Your task to perform on an android device: toggle javascript in the chrome app Image 0: 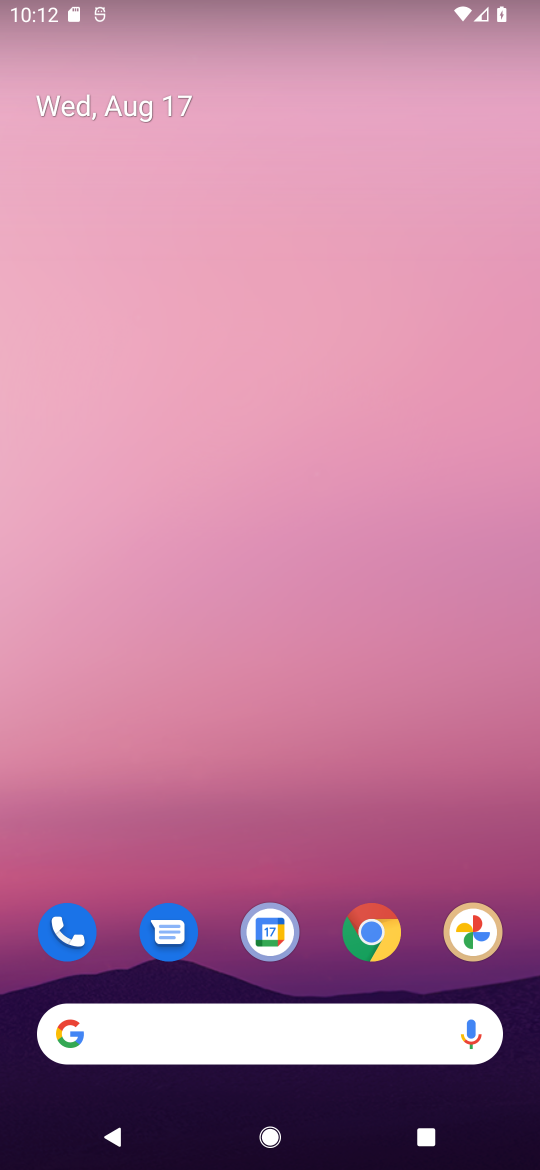
Step 0: click (372, 929)
Your task to perform on an android device: toggle javascript in the chrome app Image 1: 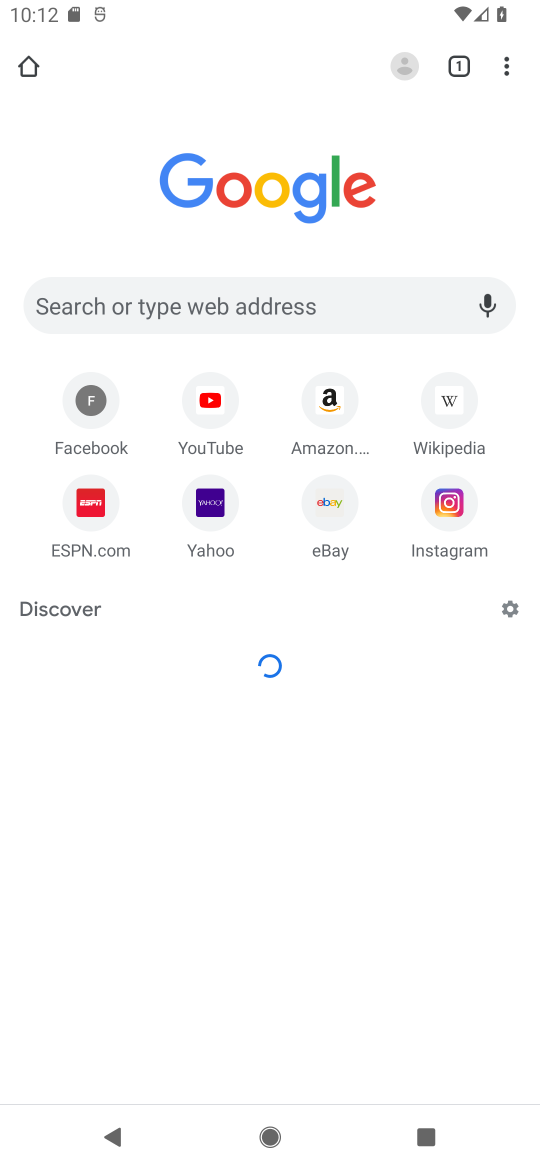
Step 1: drag from (510, 71) to (305, 569)
Your task to perform on an android device: toggle javascript in the chrome app Image 2: 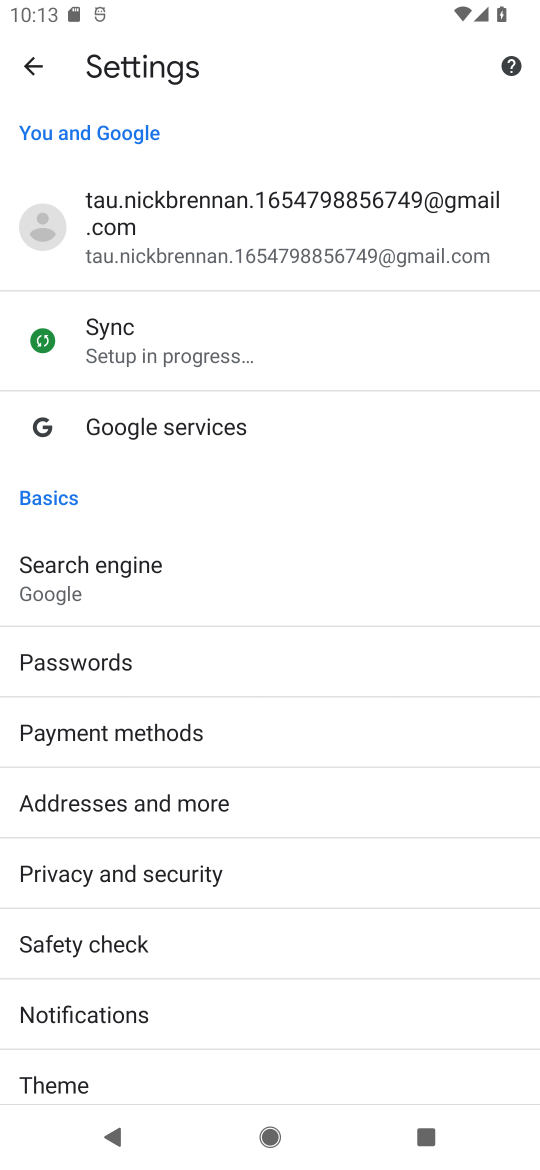
Step 2: drag from (93, 998) to (93, 512)
Your task to perform on an android device: toggle javascript in the chrome app Image 3: 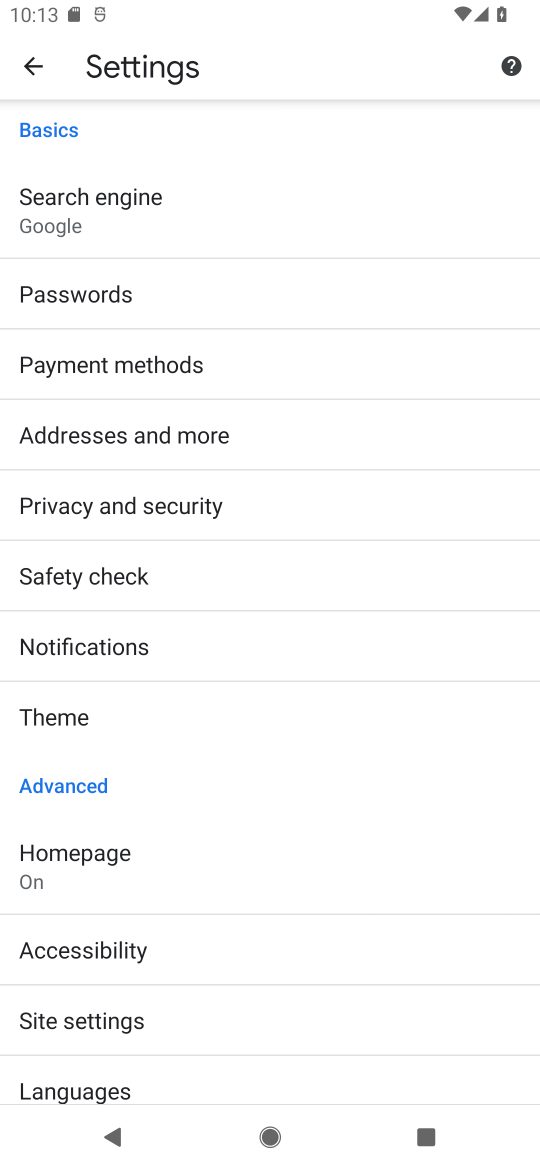
Step 3: click (100, 1010)
Your task to perform on an android device: toggle javascript in the chrome app Image 4: 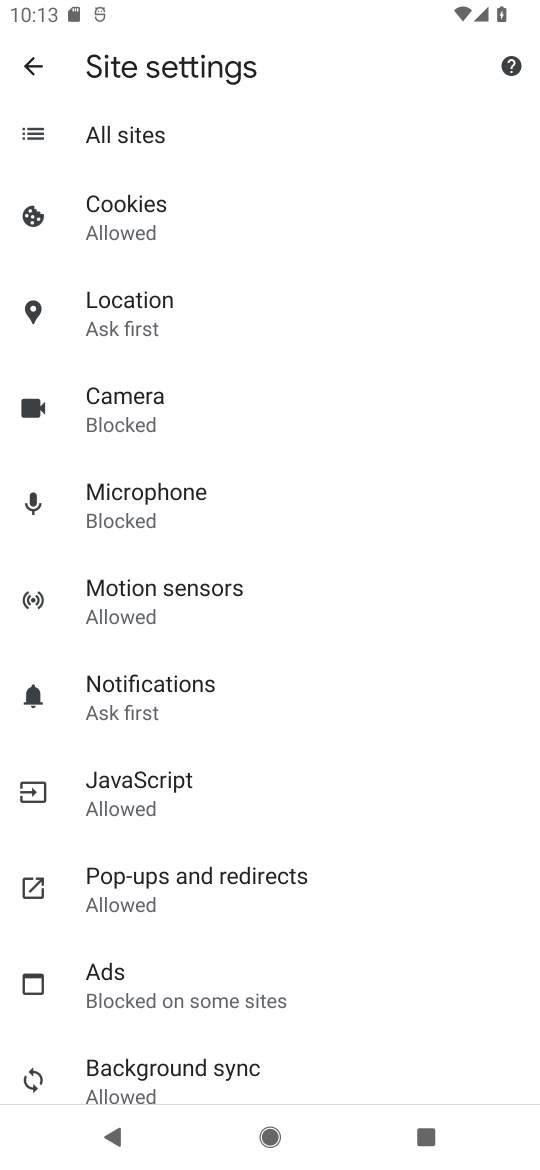
Step 4: click (131, 793)
Your task to perform on an android device: toggle javascript in the chrome app Image 5: 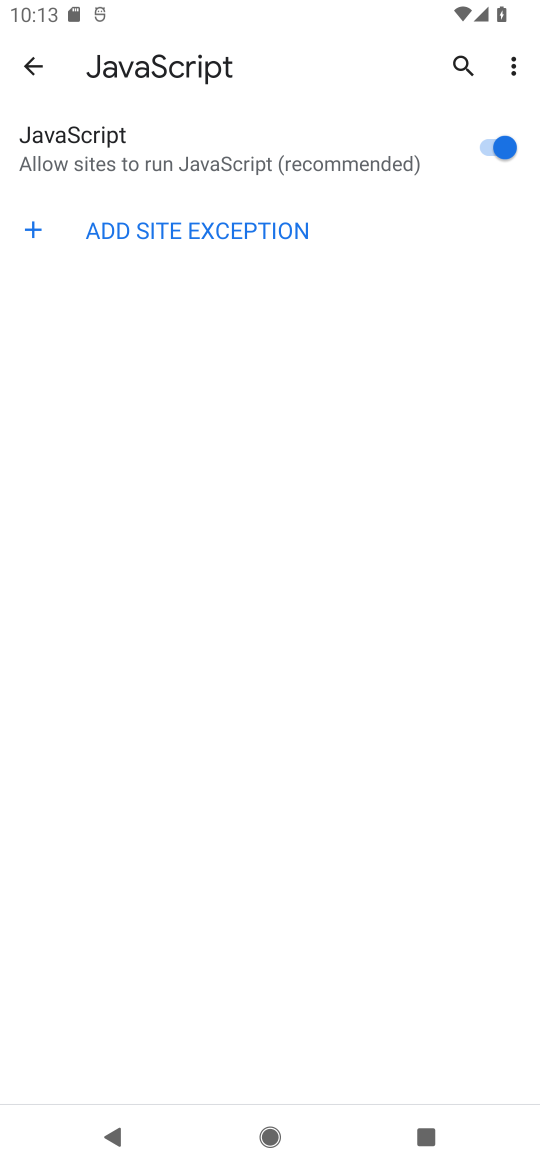
Step 5: click (492, 148)
Your task to perform on an android device: toggle javascript in the chrome app Image 6: 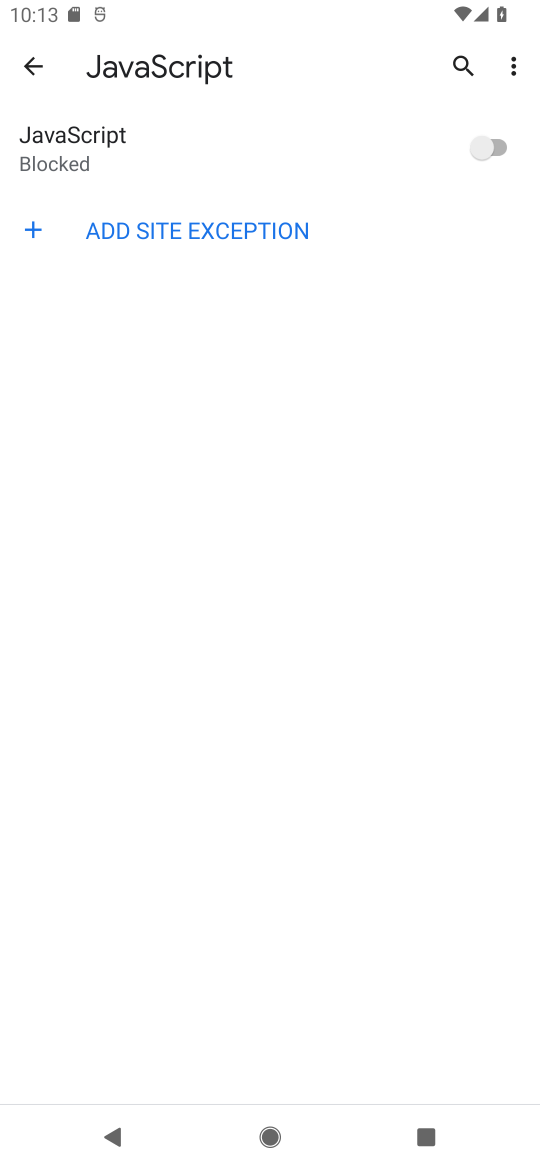
Step 6: task complete